Your task to perform on an android device: Open Google Maps and go to "Timeline" Image 0: 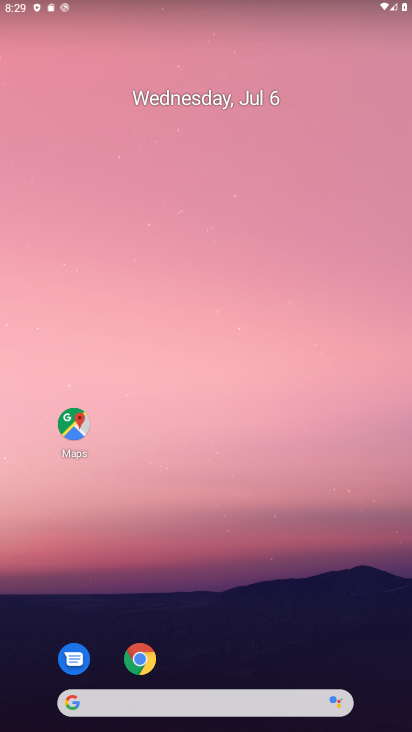
Step 0: click (341, 59)
Your task to perform on an android device: Open Google Maps and go to "Timeline" Image 1: 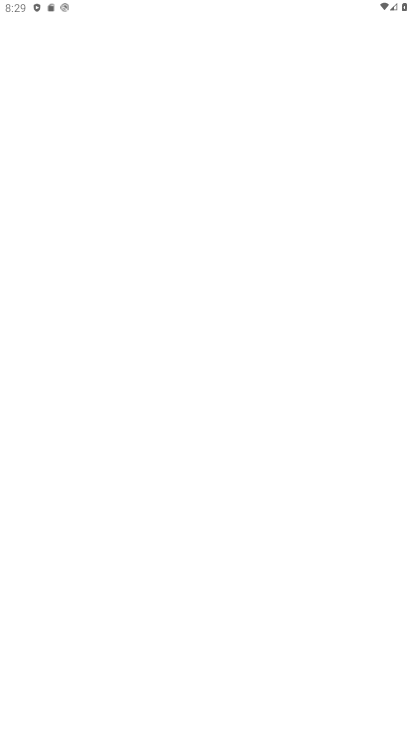
Step 1: drag from (346, 624) to (319, 247)
Your task to perform on an android device: Open Google Maps and go to "Timeline" Image 2: 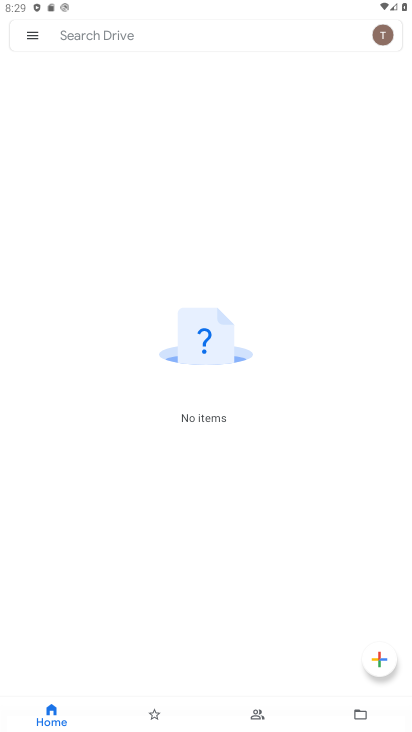
Step 2: press back button
Your task to perform on an android device: Open Google Maps and go to "Timeline" Image 3: 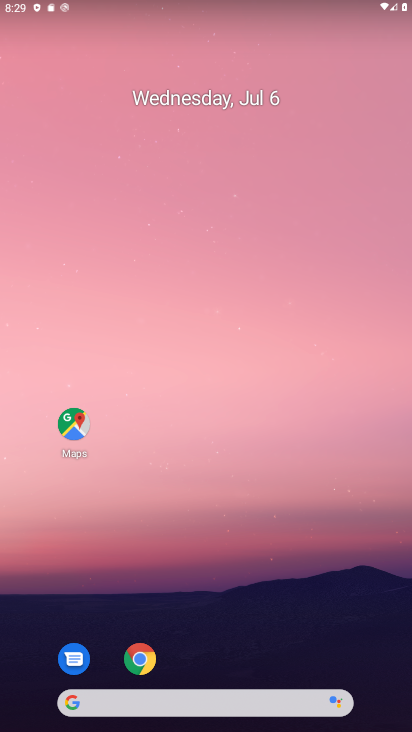
Step 3: drag from (363, 644) to (332, 172)
Your task to perform on an android device: Open Google Maps and go to "Timeline" Image 4: 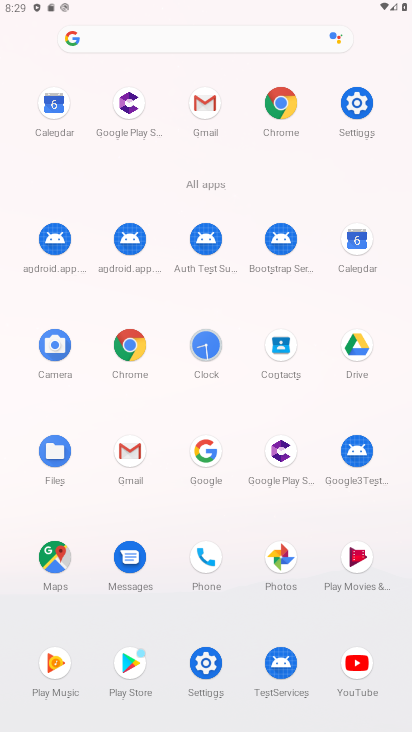
Step 4: click (60, 553)
Your task to perform on an android device: Open Google Maps and go to "Timeline" Image 5: 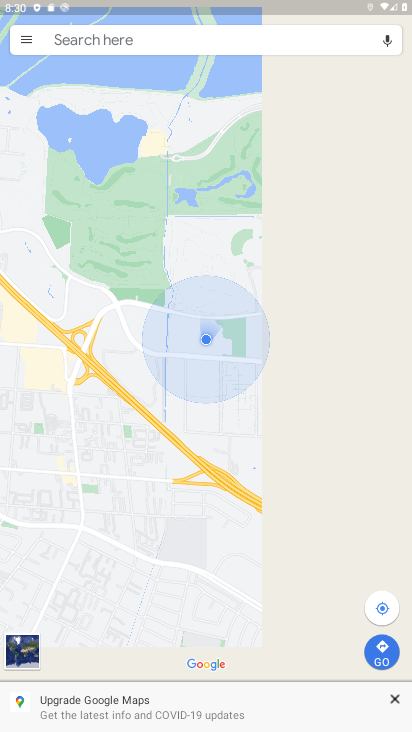
Step 5: click (30, 39)
Your task to perform on an android device: Open Google Maps and go to "Timeline" Image 6: 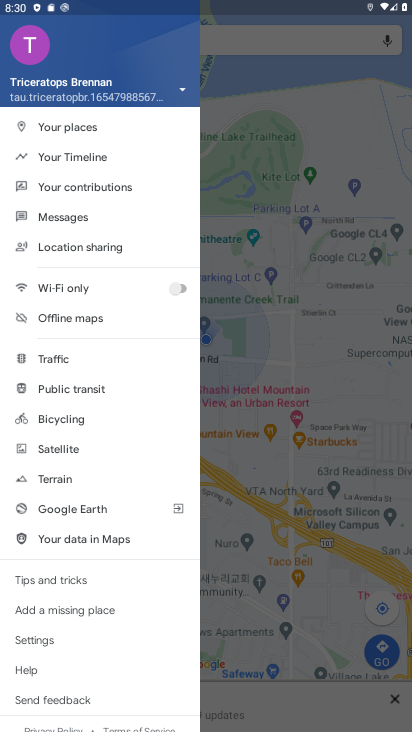
Step 6: click (98, 153)
Your task to perform on an android device: Open Google Maps and go to "Timeline" Image 7: 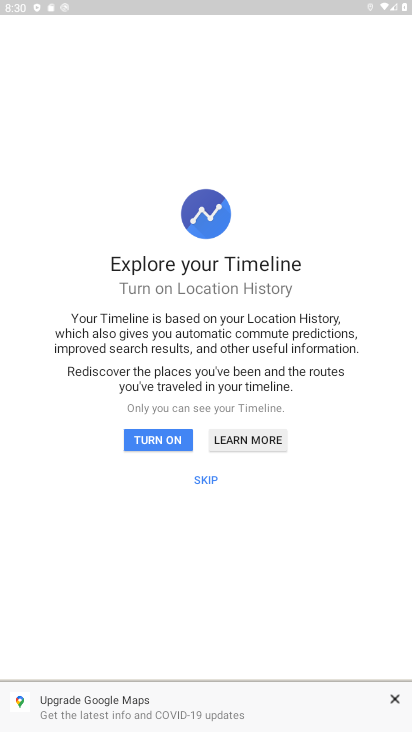
Step 7: task complete